Your task to perform on an android device: Go to Android settings Image 0: 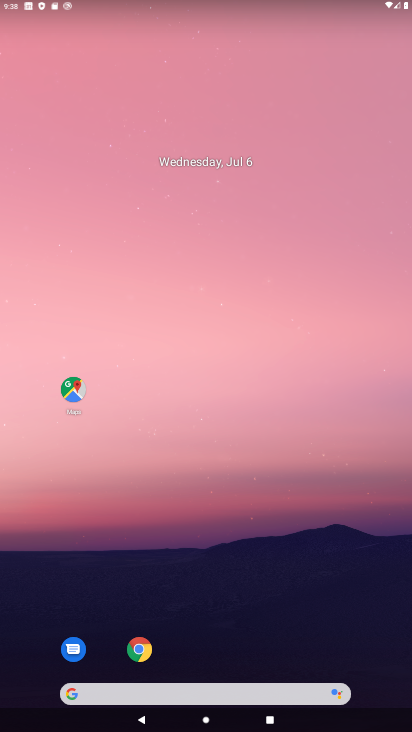
Step 0: drag from (235, 686) to (217, 25)
Your task to perform on an android device: Go to Android settings Image 1: 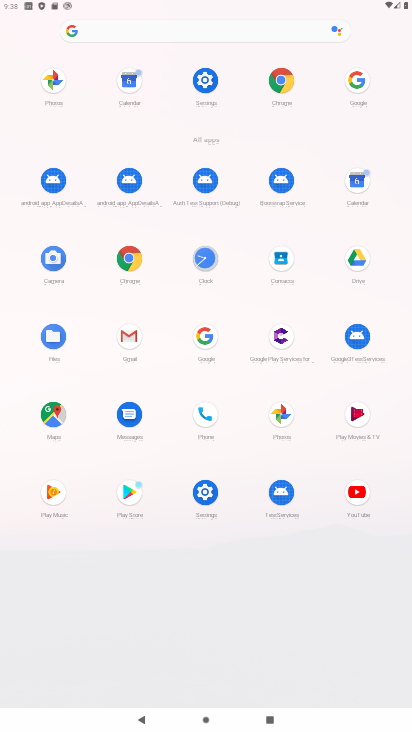
Step 1: click (203, 84)
Your task to perform on an android device: Go to Android settings Image 2: 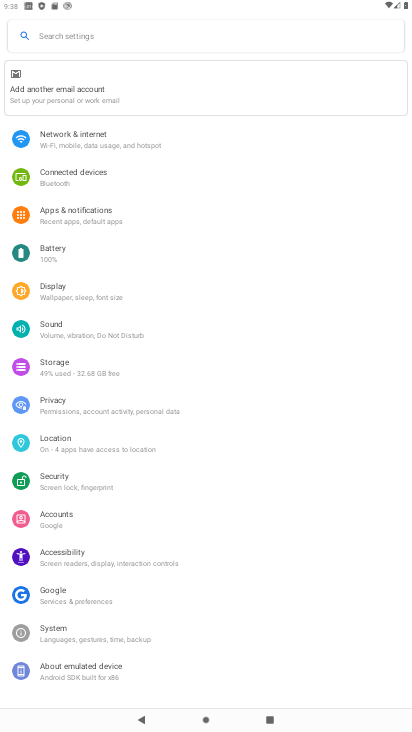
Step 2: task complete